Your task to perform on an android device: Check the news Image 0: 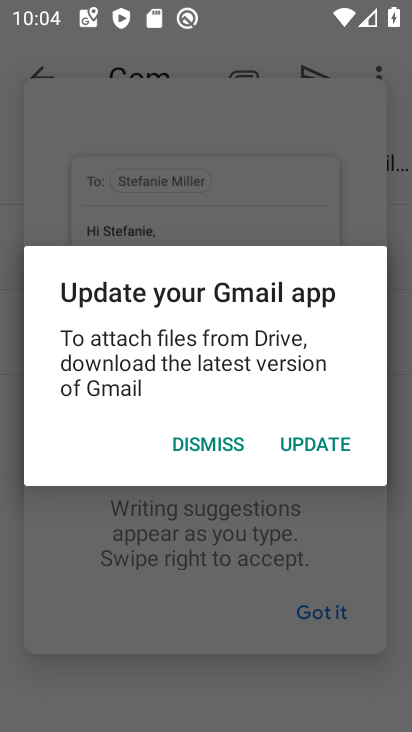
Step 0: press home button
Your task to perform on an android device: Check the news Image 1: 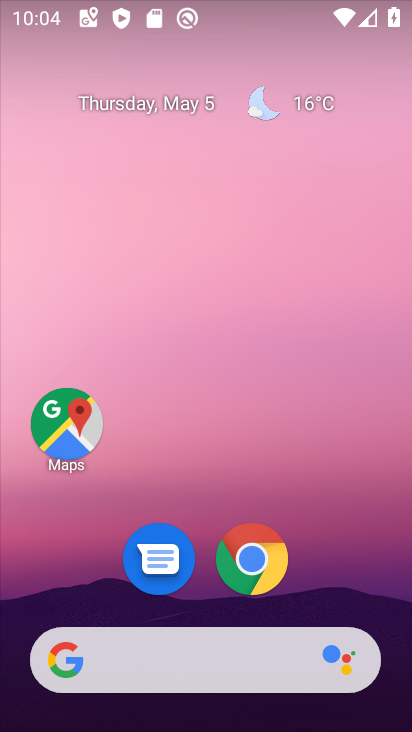
Step 1: task complete